Your task to perform on an android device: Is it going to rain tomorrow? Image 0: 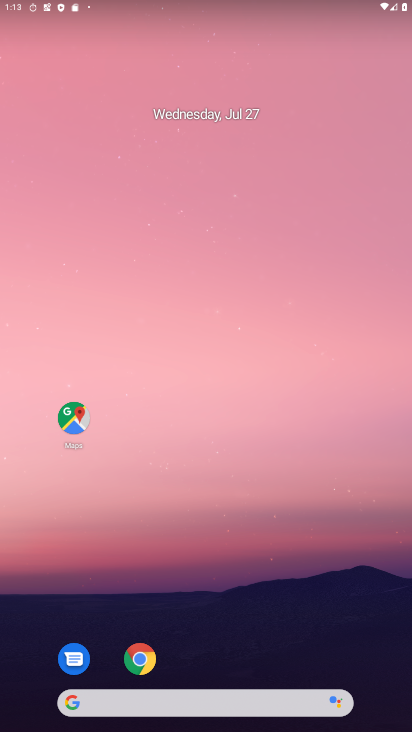
Step 0: click (171, 698)
Your task to perform on an android device: Is it going to rain tomorrow? Image 1: 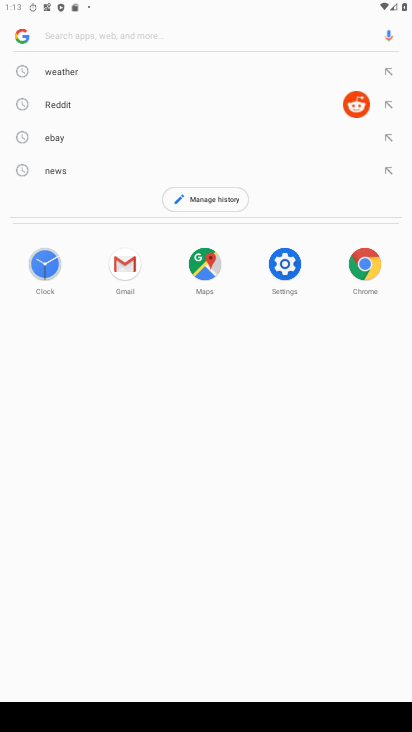
Step 1: click (71, 70)
Your task to perform on an android device: Is it going to rain tomorrow? Image 2: 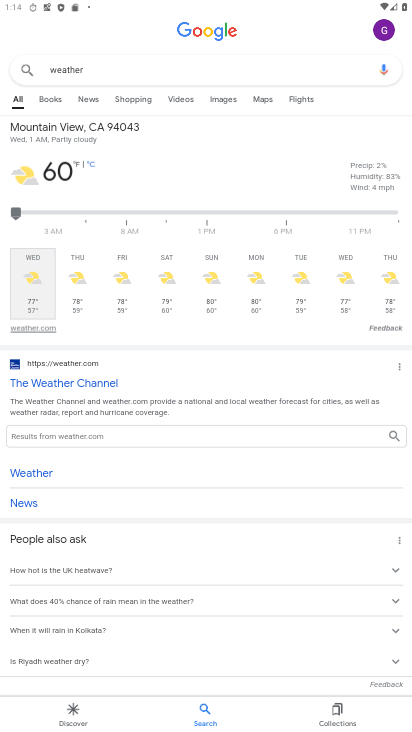
Step 2: click (77, 273)
Your task to perform on an android device: Is it going to rain tomorrow? Image 3: 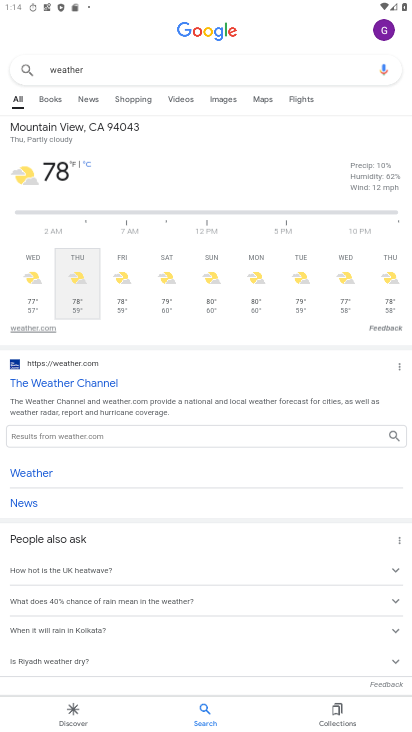
Step 3: task complete